Your task to perform on an android device: Show me popular videos on Youtube Image 0: 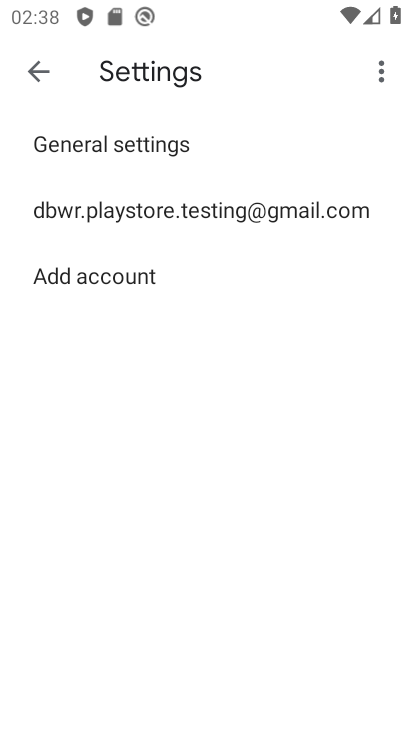
Step 0: press home button
Your task to perform on an android device: Show me popular videos on Youtube Image 1: 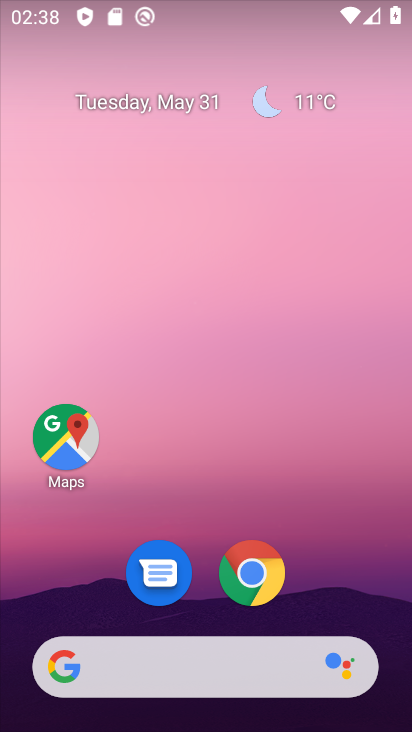
Step 1: drag from (395, 639) to (321, 264)
Your task to perform on an android device: Show me popular videos on Youtube Image 2: 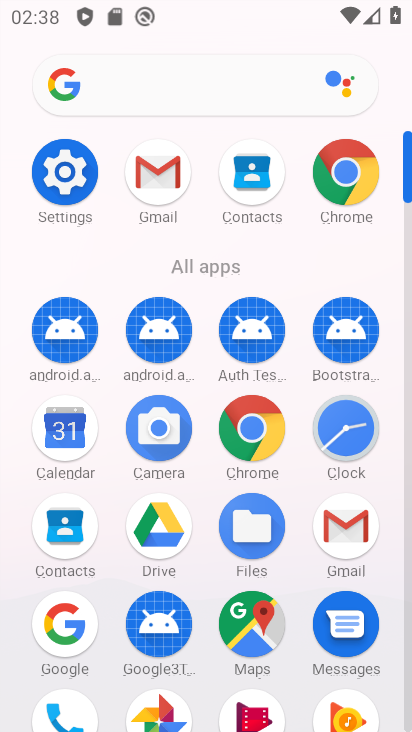
Step 2: click (409, 694)
Your task to perform on an android device: Show me popular videos on Youtube Image 3: 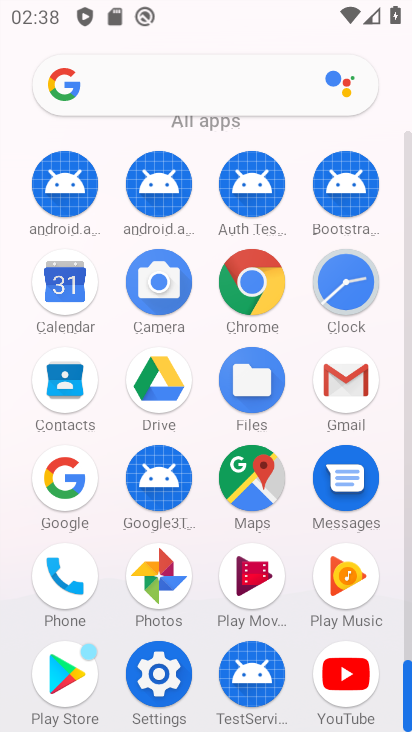
Step 3: click (360, 675)
Your task to perform on an android device: Show me popular videos on Youtube Image 4: 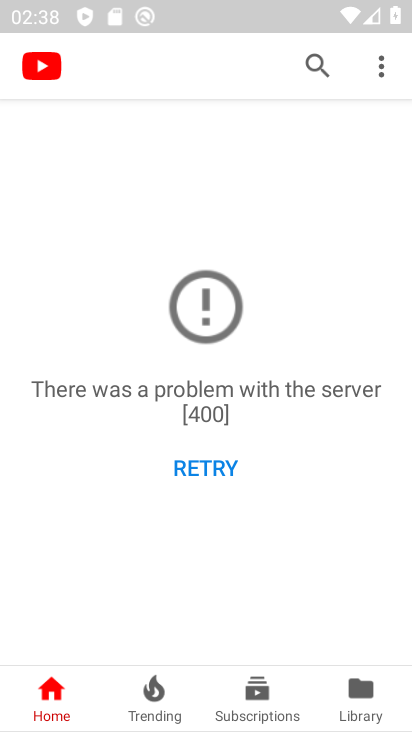
Step 4: click (150, 694)
Your task to perform on an android device: Show me popular videos on Youtube Image 5: 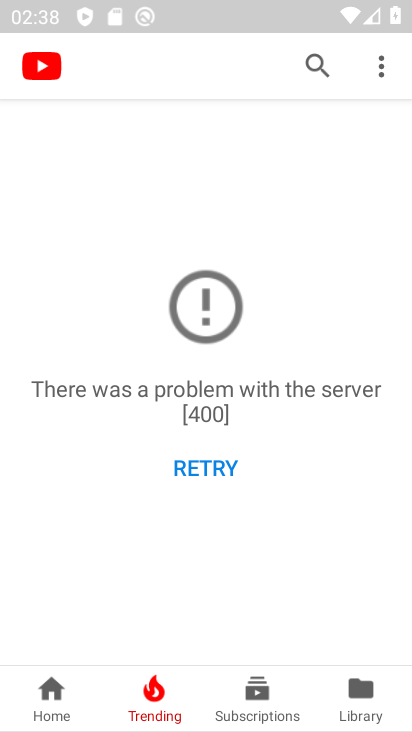
Step 5: task complete